Your task to perform on an android device: turn off notifications settings in the gmail app Image 0: 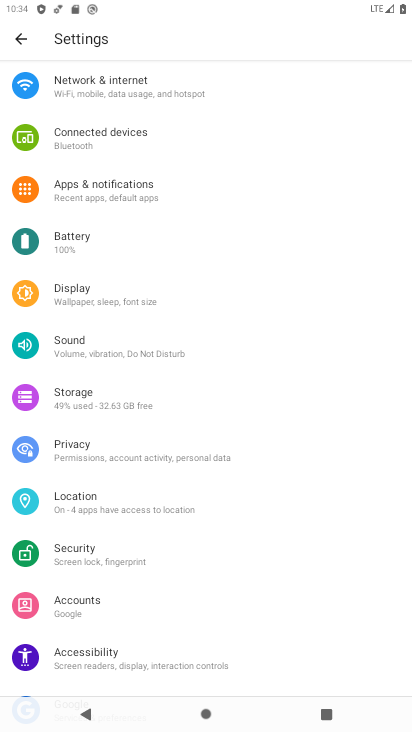
Step 0: press home button
Your task to perform on an android device: turn off notifications settings in the gmail app Image 1: 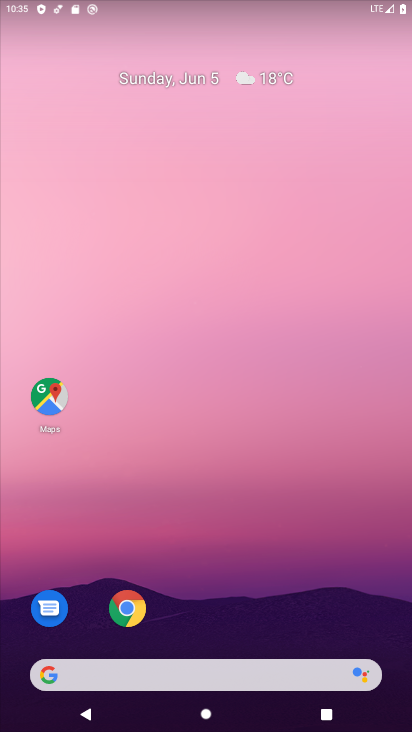
Step 1: drag from (208, 669) to (194, 160)
Your task to perform on an android device: turn off notifications settings in the gmail app Image 2: 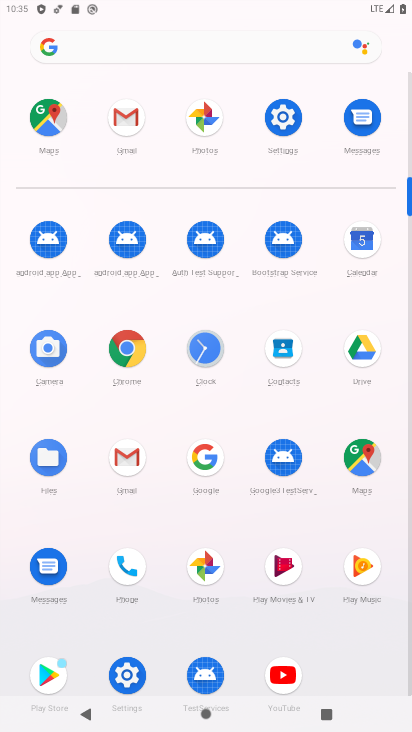
Step 2: click (123, 457)
Your task to perform on an android device: turn off notifications settings in the gmail app Image 3: 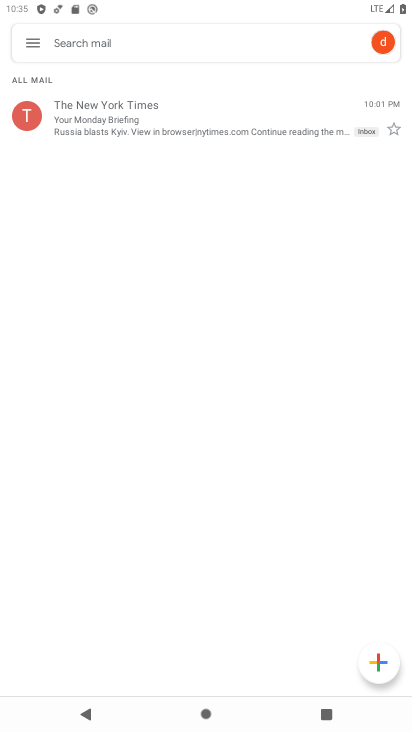
Step 3: click (26, 40)
Your task to perform on an android device: turn off notifications settings in the gmail app Image 4: 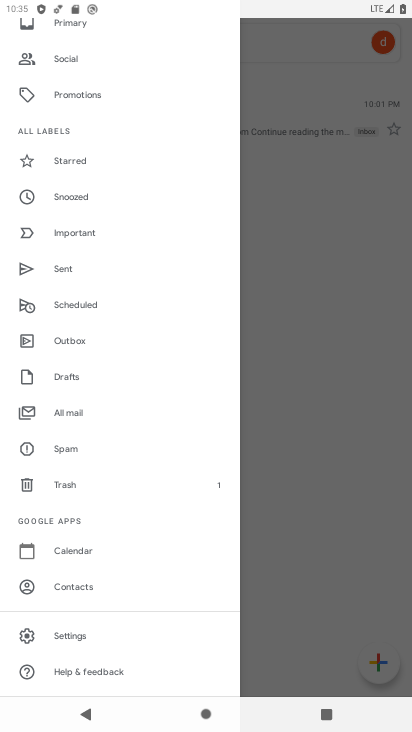
Step 4: click (57, 630)
Your task to perform on an android device: turn off notifications settings in the gmail app Image 5: 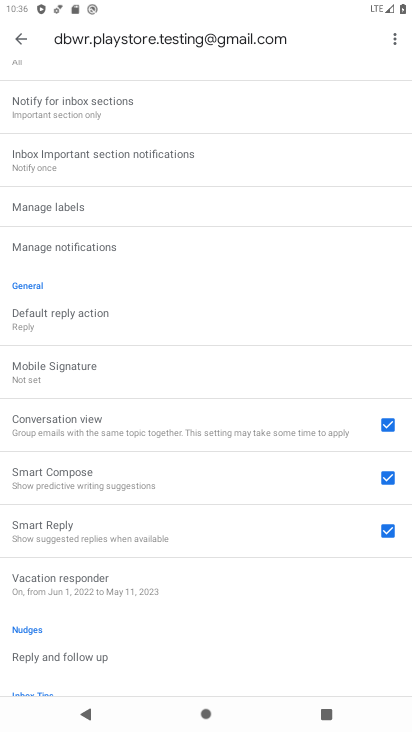
Step 5: click (100, 247)
Your task to perform on an android device: turn off notifications settings in the gmail app Image 6: 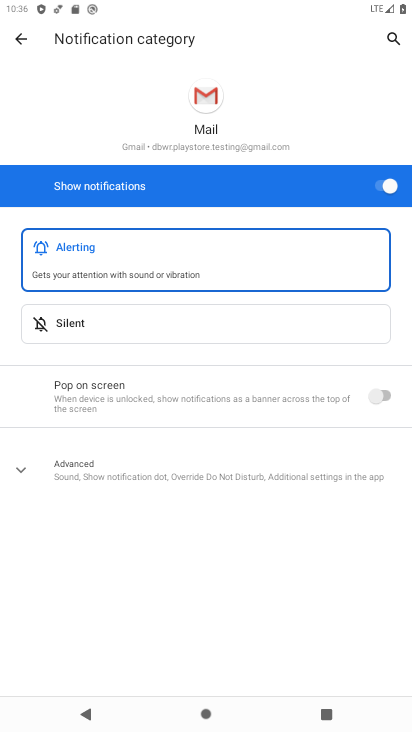
Step 6: click (396, 190)
Your task to perform on an android device: turn off notifications settings in the gmail app Image 7: 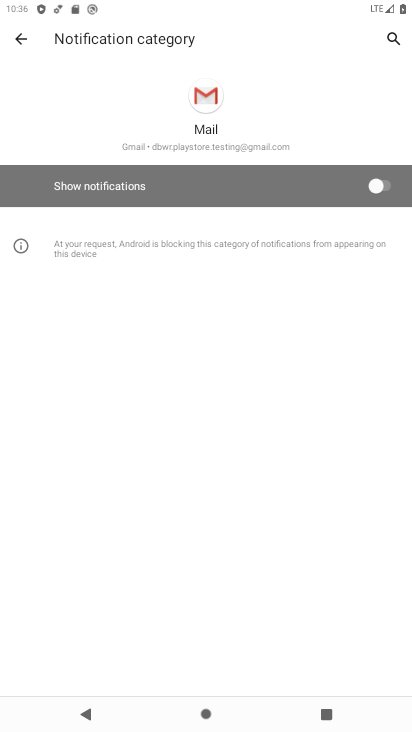
Step 7: task complete